Your task to perform on an android device: Search for sushi restaurants on Maps Image 0: 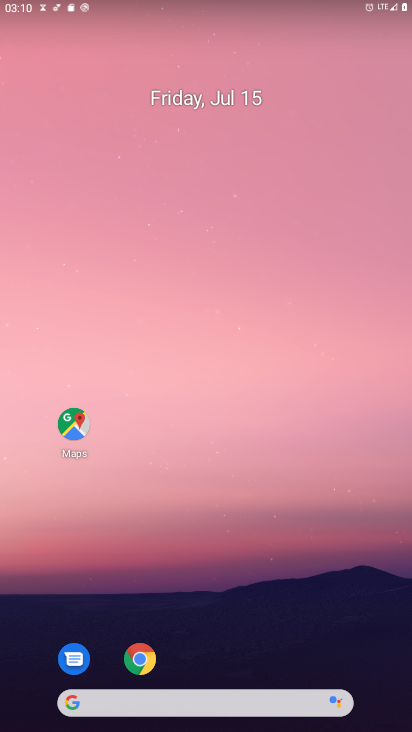
Step 0: click (78, 433)
Your task to perform on an android device: Search for sushi restaurants on Maps Image 1: 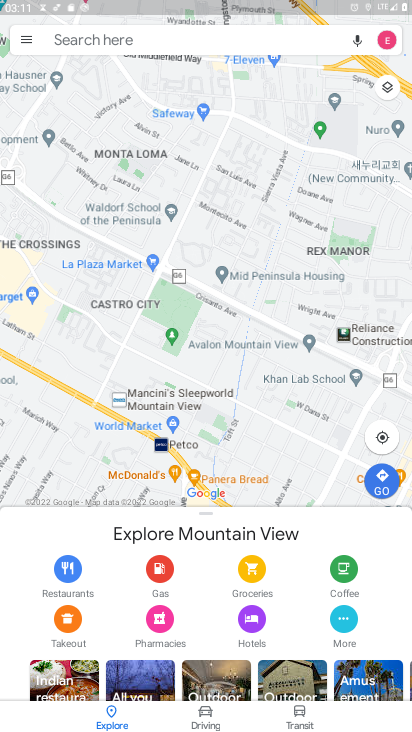
Step 1: click (93, 30)
Your task to perform on an android device: Search for sushi restaurants on Maps Image 2: 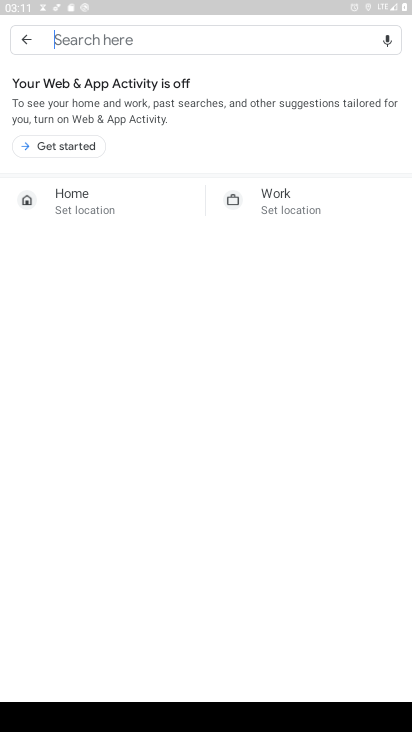
Step 2: type "r sushi restaurants  "
Your task to perform on an android device: Search for sushi restaurants on Maps Image 3: 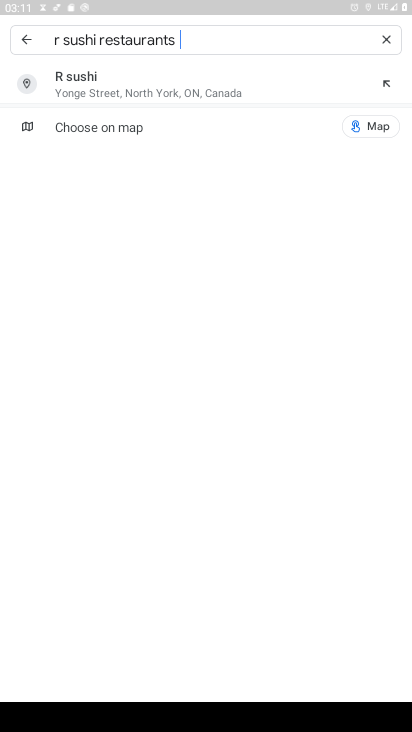
Step 3: click (63, 23)
Your task to perform on an android device: Search for sushi restaurants on Maps Image 4: 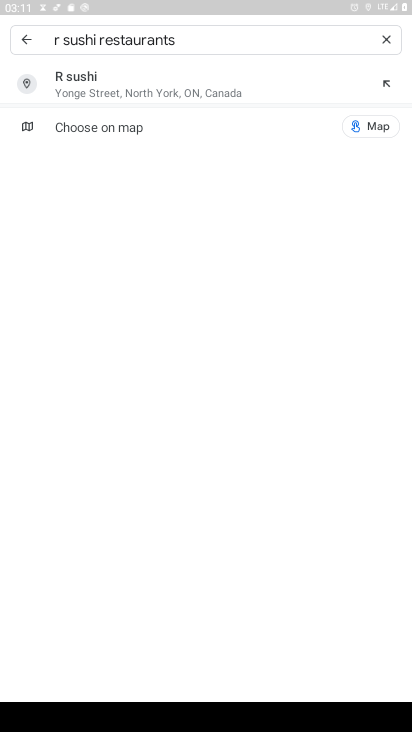
Step 4: click (69, 38)
Your task to perform on an android device: Search for sushi restaurants on Maps Image 5: 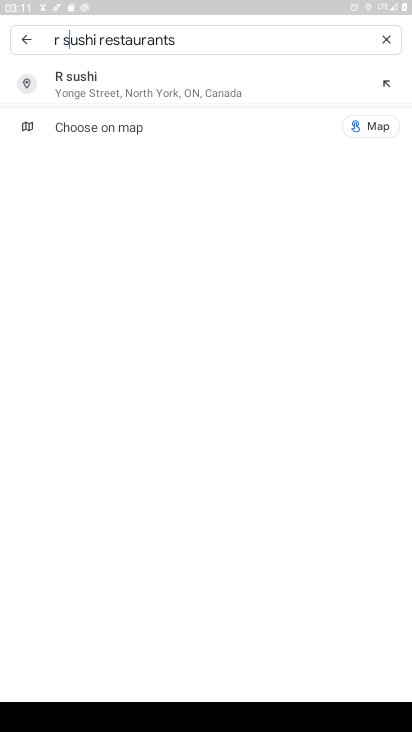
Step 5: click (69, 38)
Your task to perform on an android device: Search for sushi restaurants on Maps Image 6: 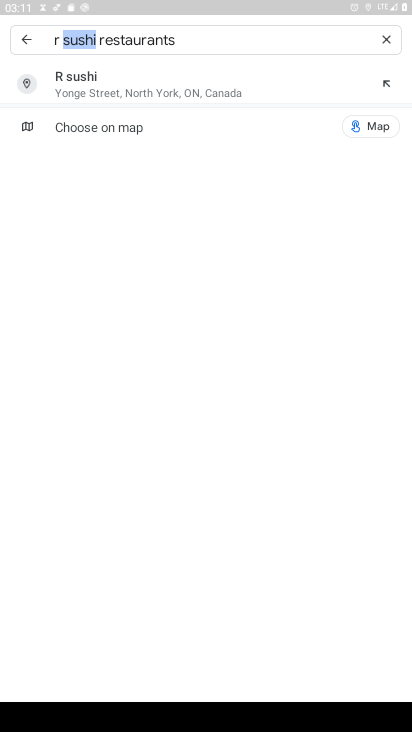
Step 6: click (69, 38)
Your task to perform on an android device: Search for sushi restaurants on Maps Image 7: 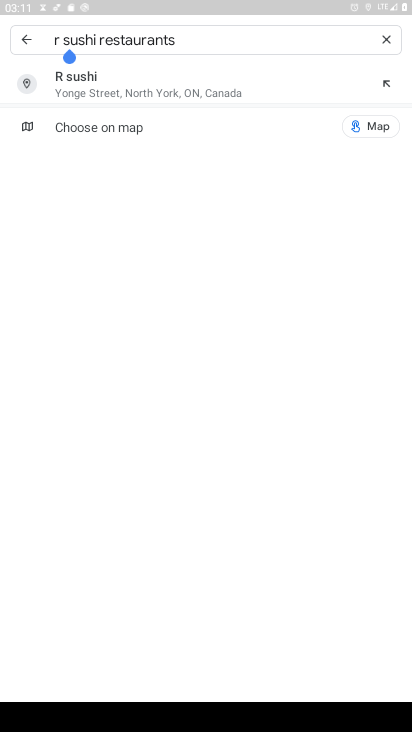
Step 7: click (60, 38)
Your task to perform on an android device: Search for sushi restaurants on Maps Image 8: 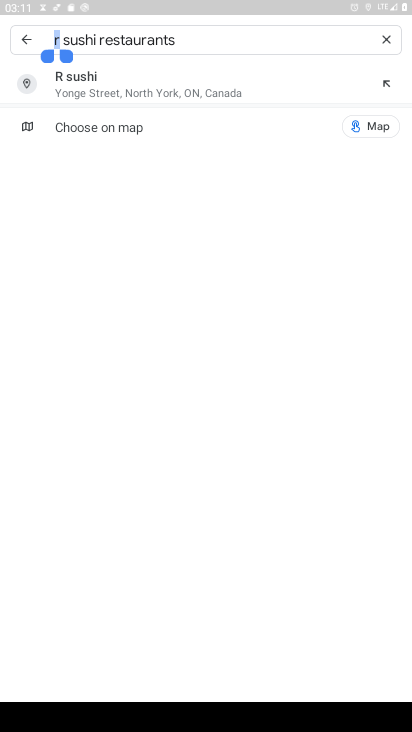
Step 8: click (60, 38)
Your task to perform on an android device: Search for sushi restaurants on Maps Image 9: 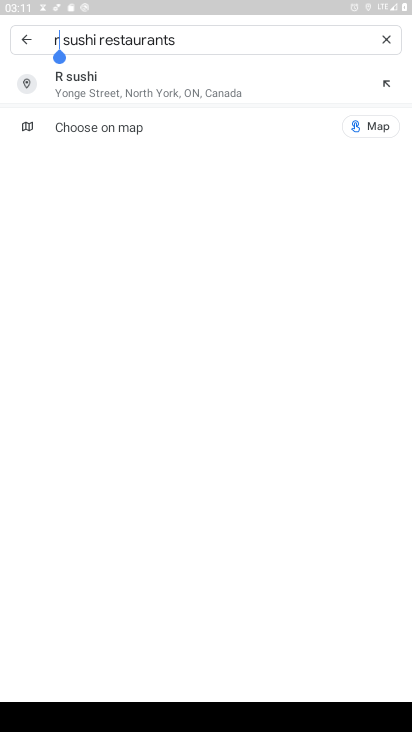
Step 9: click (58, 38)
Your task to perform on an android device: Search for sushi restaurants on Maps Image 10: 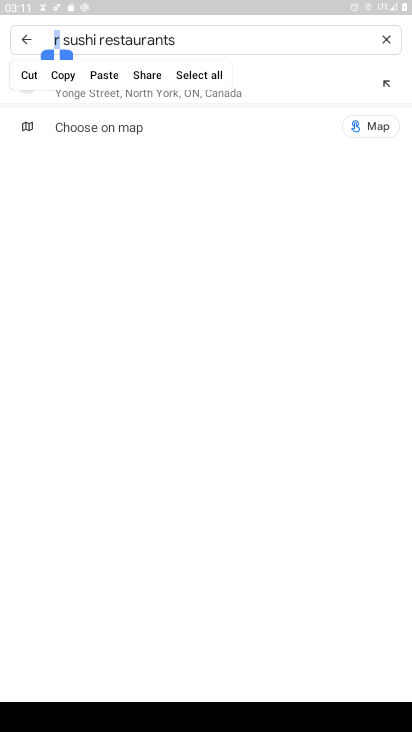
Step 10: click (25, 73)
Your task to perform on an android device: Search for sushi restaurants on Maps Image 11: 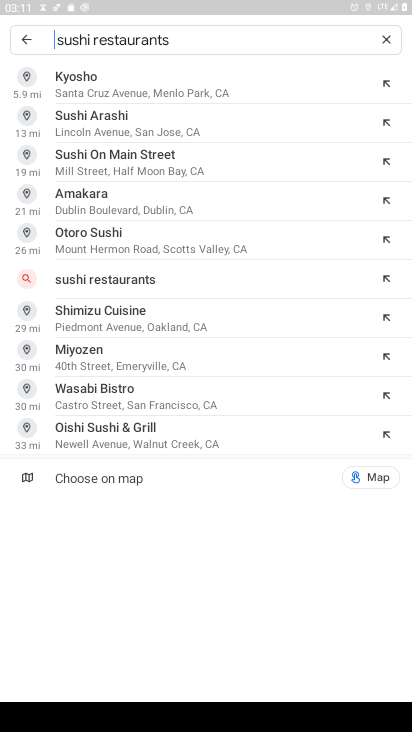
Step 11: click (102, 277)
Your task to perform on an android device: Search for sushi restaurants on Maps Image 12: 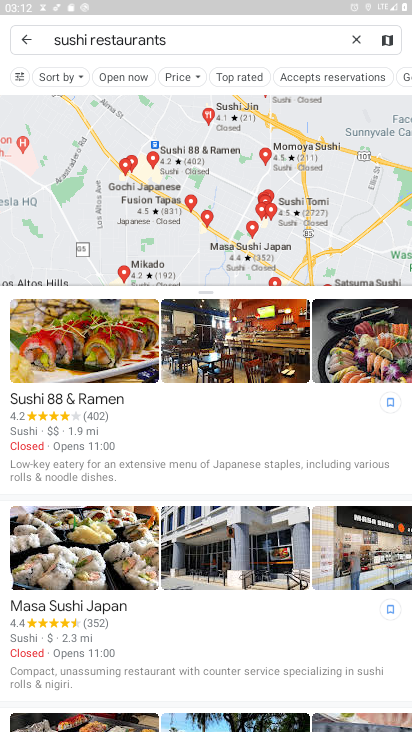
Step 12: task complete